Your task to perform on an android device: add a contact in the contacts app Image 0: 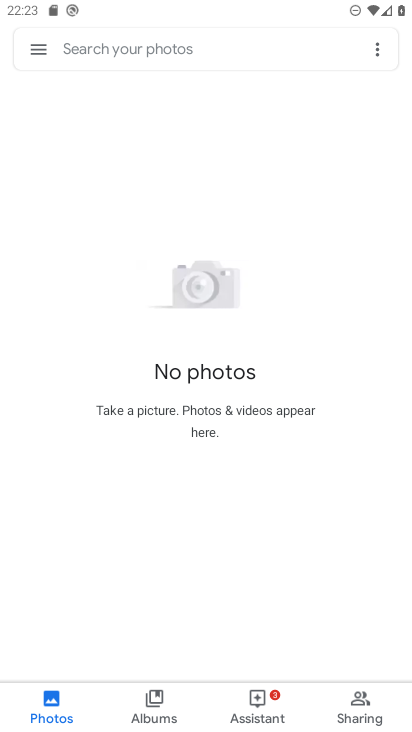
Step 0: press home button
Your task to perform on an android device: add a contact in the contacts app Image 1: 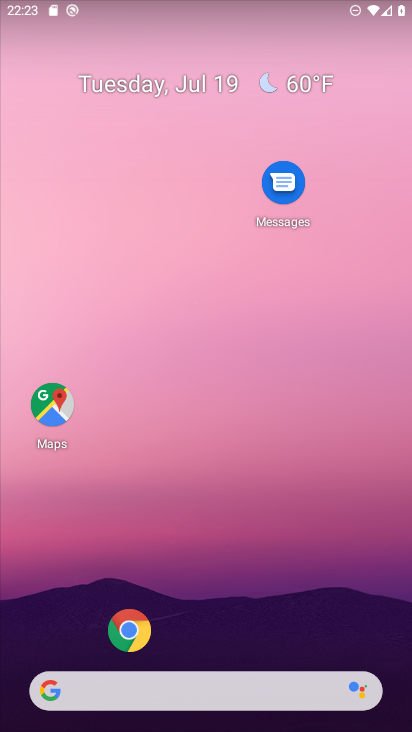
Step 1: drag from (139, 405) to (270, 107)
Your task to perform on an android device: add a contact in the contacts app Image 2: 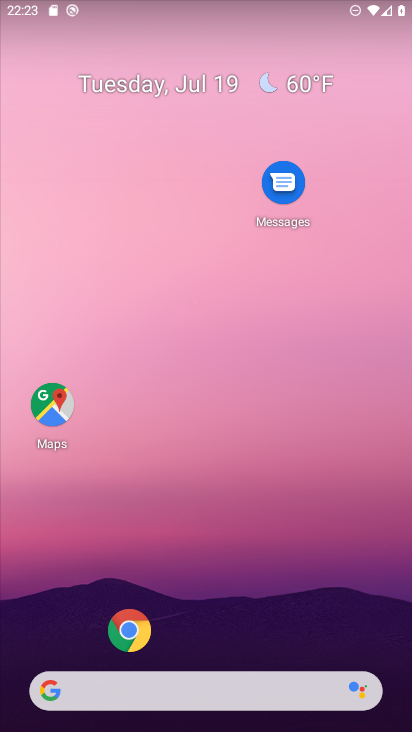
Step 2: drag from (96, 489) to (262, 54)
Your task to perform on an android device: add a contact in the contacts app Image 3: 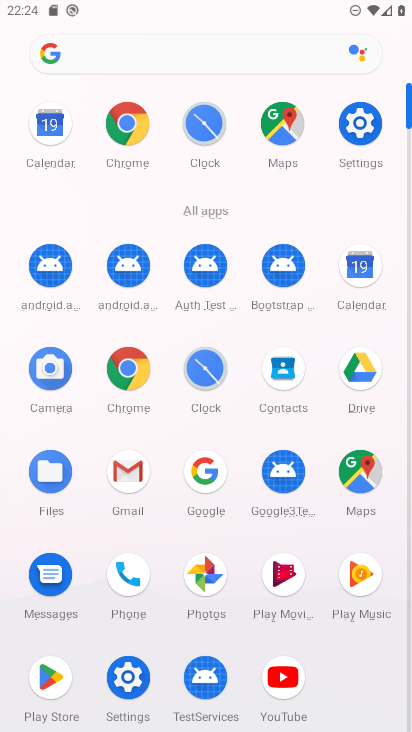
Step 3: click (272, 382)
Your task to perform on an android device: add a contact in the contacts app Image 4: 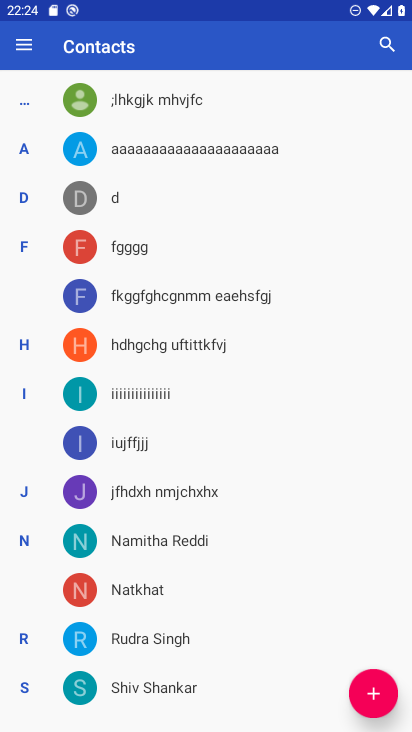
Step 4: click (378, 698)
Your task to perform on an android device: add a contact in the contacts app Image 5: 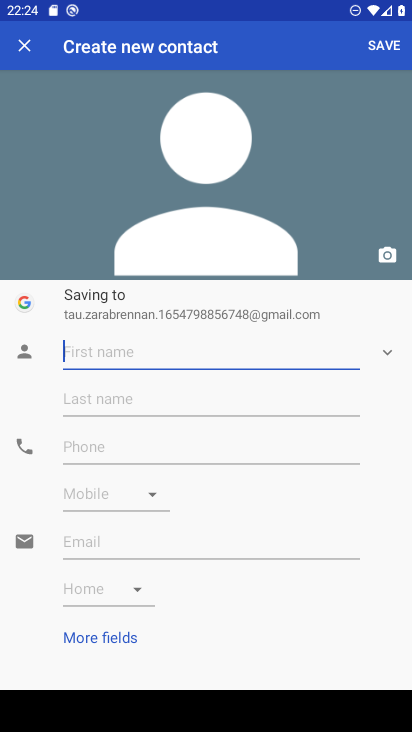
Step 5: type "gfjftjfdg"
Your task to perform on an android device: add a contact in the contacts app Image 6: 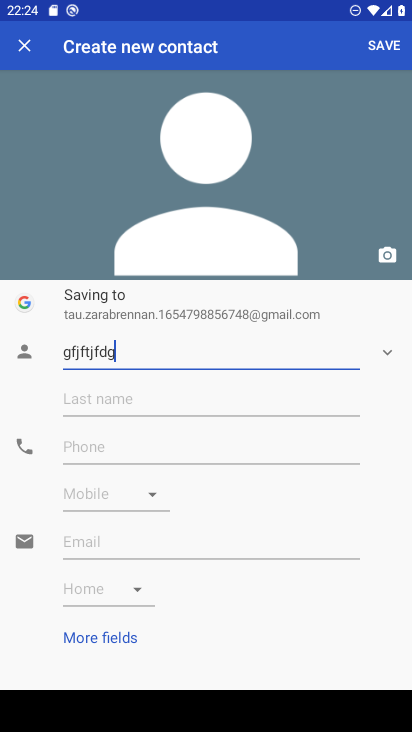
Step 6: type ""
Your task to perform on an android device: add a contact in the contacts app Image 7: 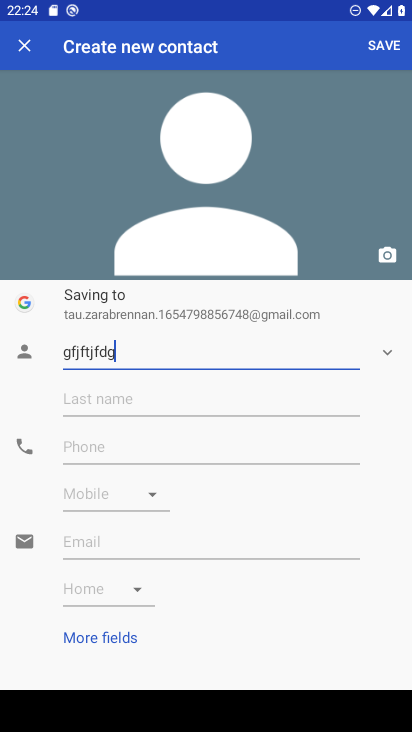
Step 7: click (374, 54)
Your task to perform on an android device: add a contact in the contacts app Image 8: 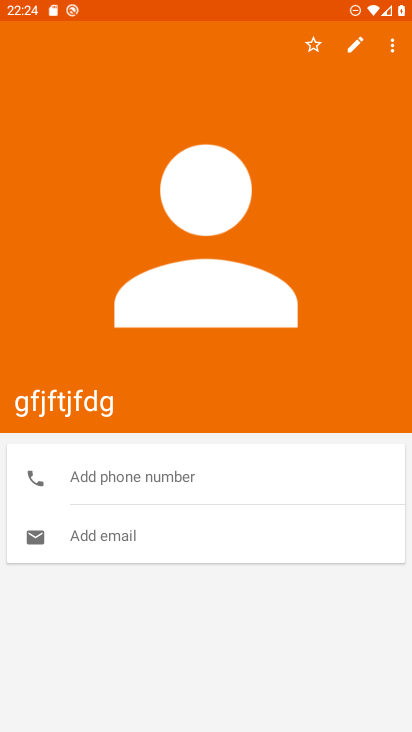
Step 8: task complete